Your task to perform on an android device: set default search engine in the chrome app Image 0: 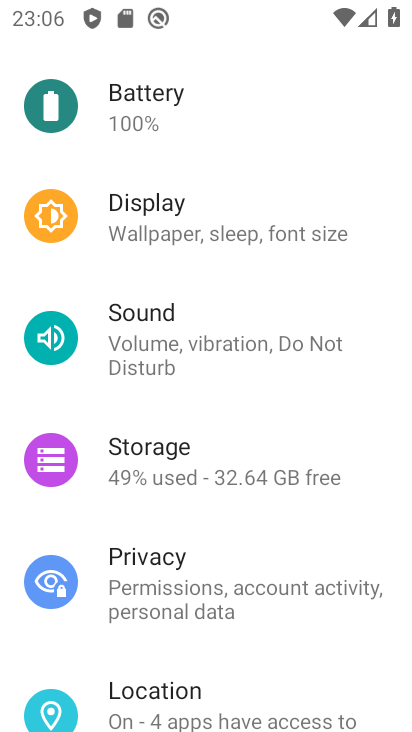
Step 0: press home button
Your task to perform on an android device: set default search engine in the chrome app Image 1: 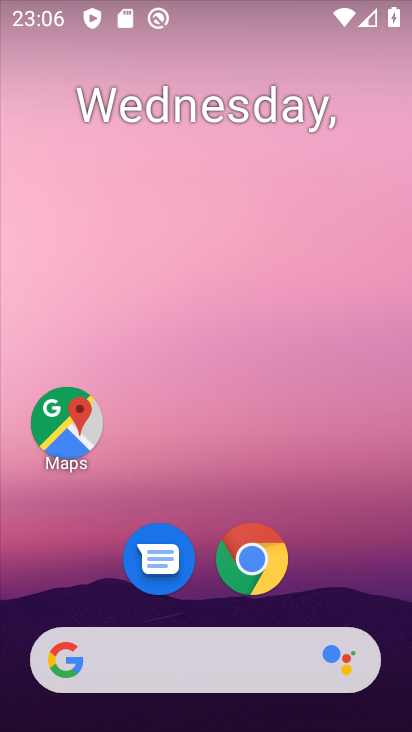
Step 1: click (244, 558)
Your task to perform on an android device: set default search engine in the chrome app Image 2: 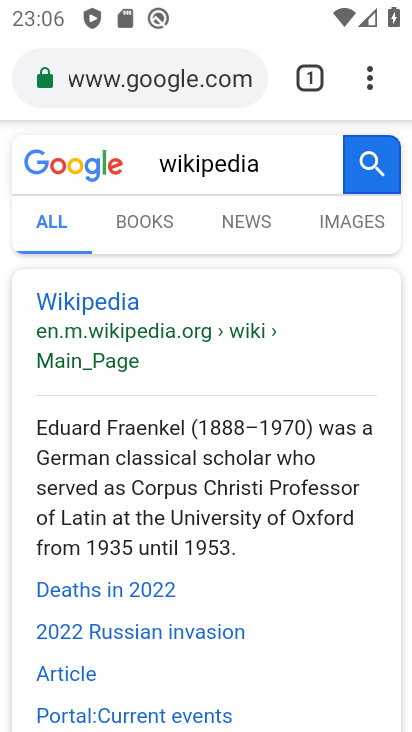
Step 2: click (367, 78)
Your task to perform on an android device: set default search engine in the chrome app Image 3: 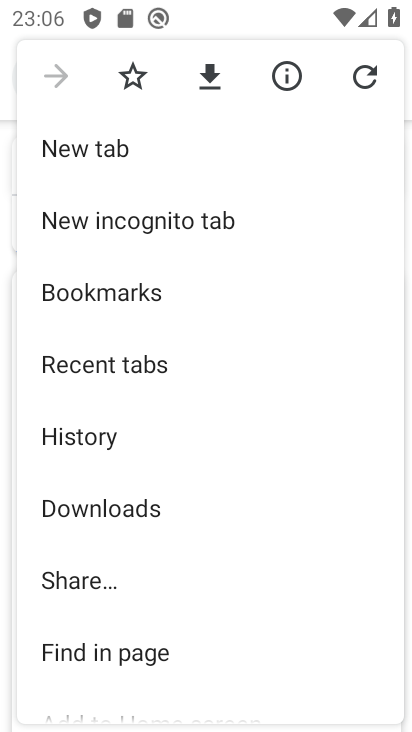
Step 3: drag from (133, 567) to (211, 225)
Your task to perform on an android device: set default search engine in the chrome app Image 4: 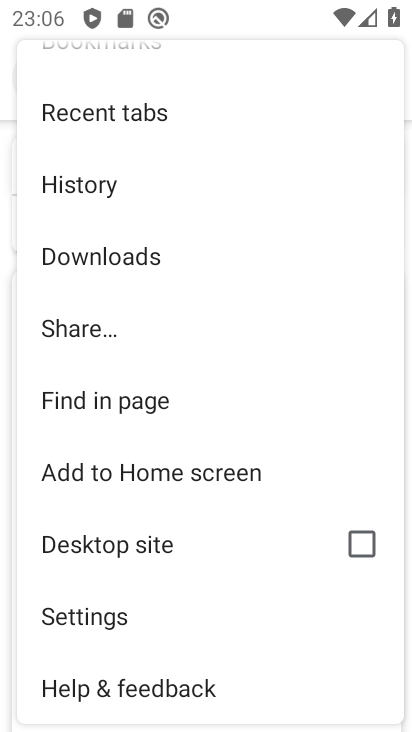
Step 4: click (115, 625)
Your task to perform on an android device: set default search engine in the chrome app Image 5: 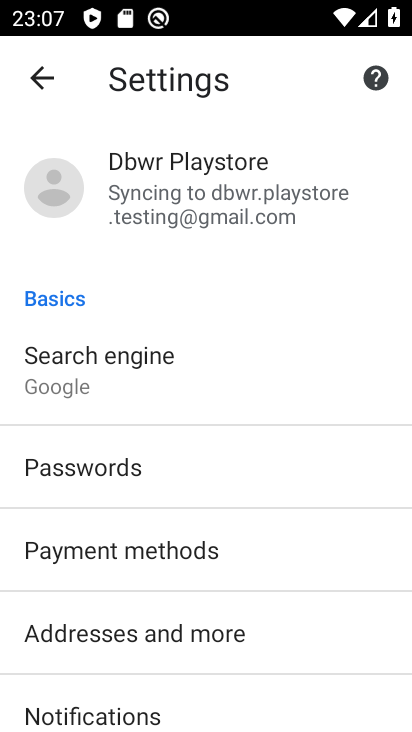
Step 5: click (106, 376)
Your task to perform on an android device: set default search engine in the chrome app Image 6: 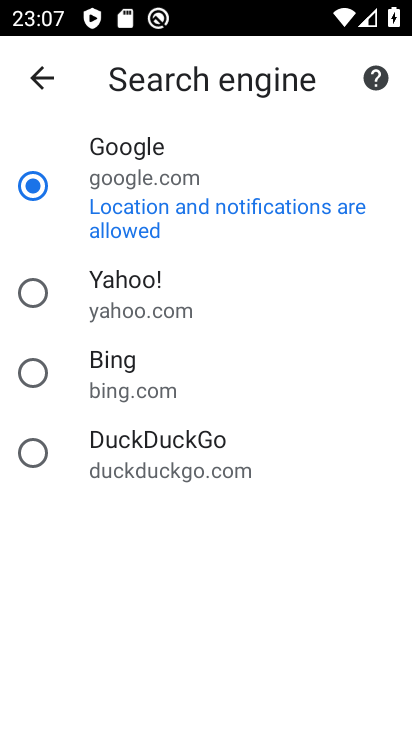
Step 6: task complete